Your task to perform on an android device: turn on sleep mode Image 0: 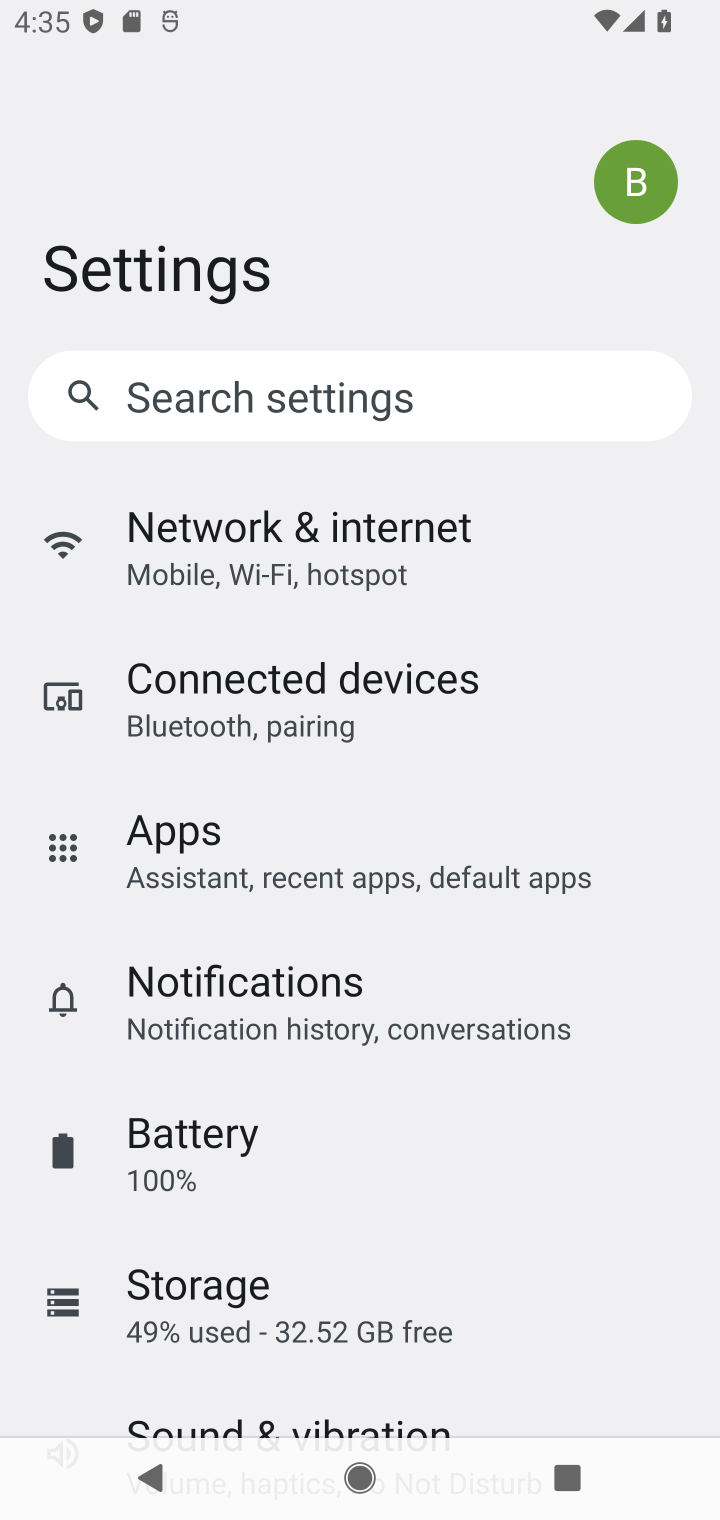
Step 0: drag from (313, 1345) to (265, 1035)
Your task to perform on an android device: turn on sleep mode Image 1: 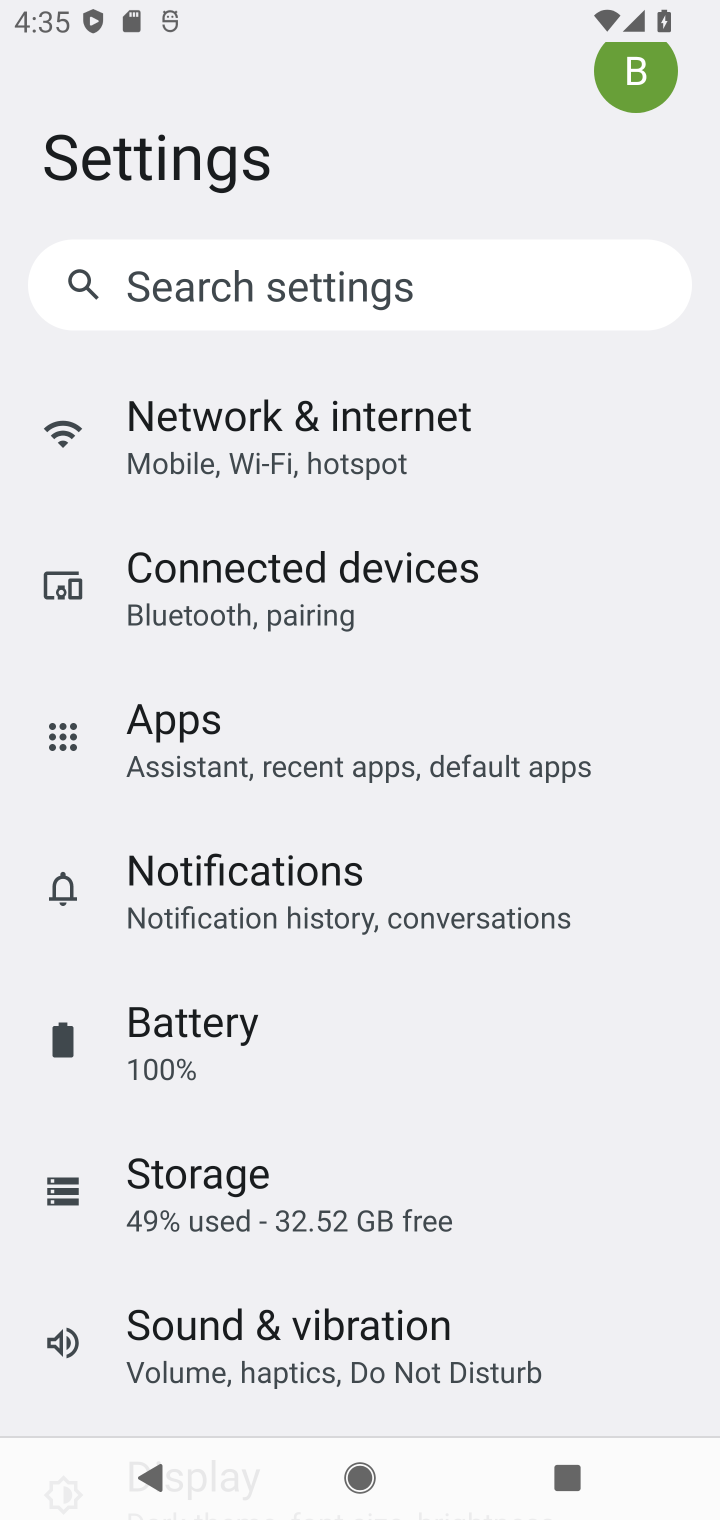
Step 1: drag from (281, 1322) to (185, 759)
Your task to perform on an android device: turn on sleep mode Image 2: 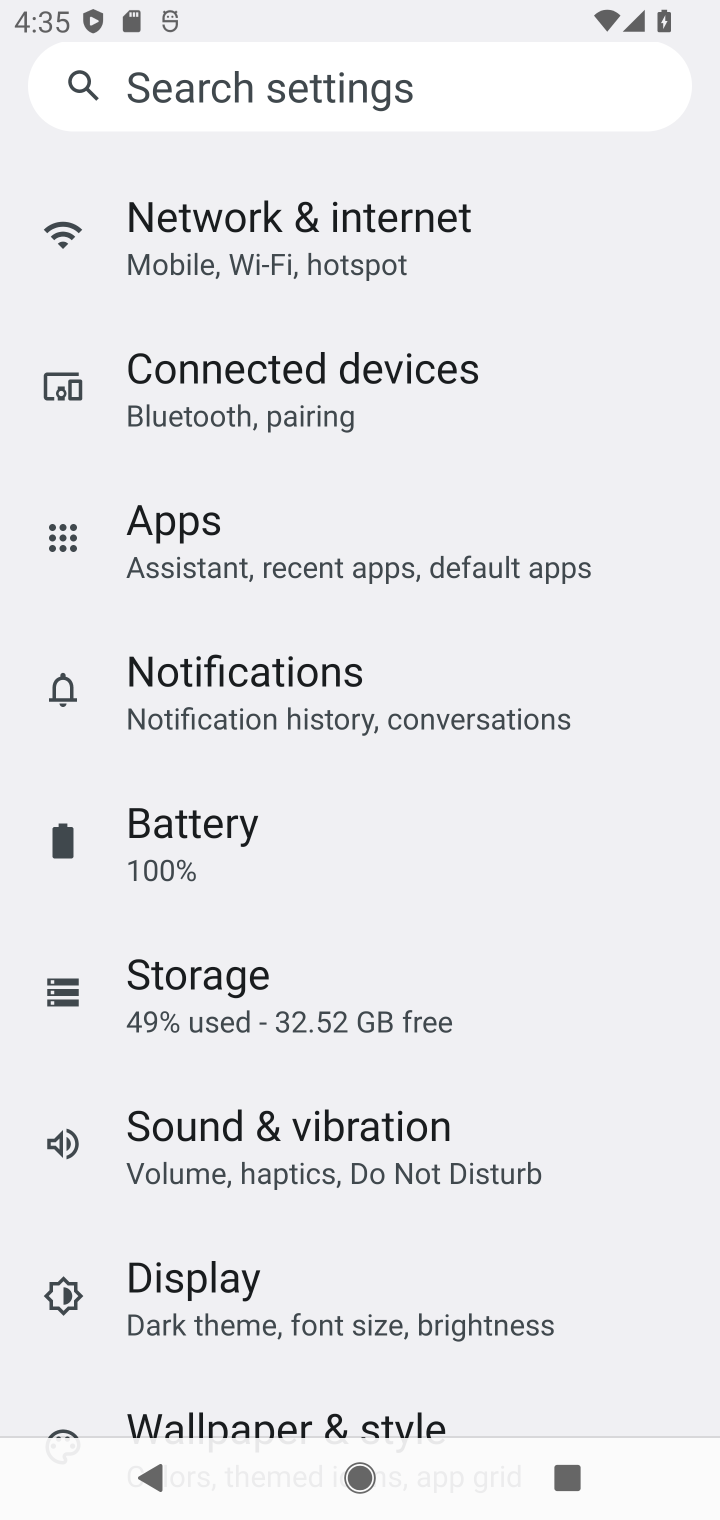
Step 2: click (293, 1318)
Your task to perform on an android device: turn on sleep mode Image 3: 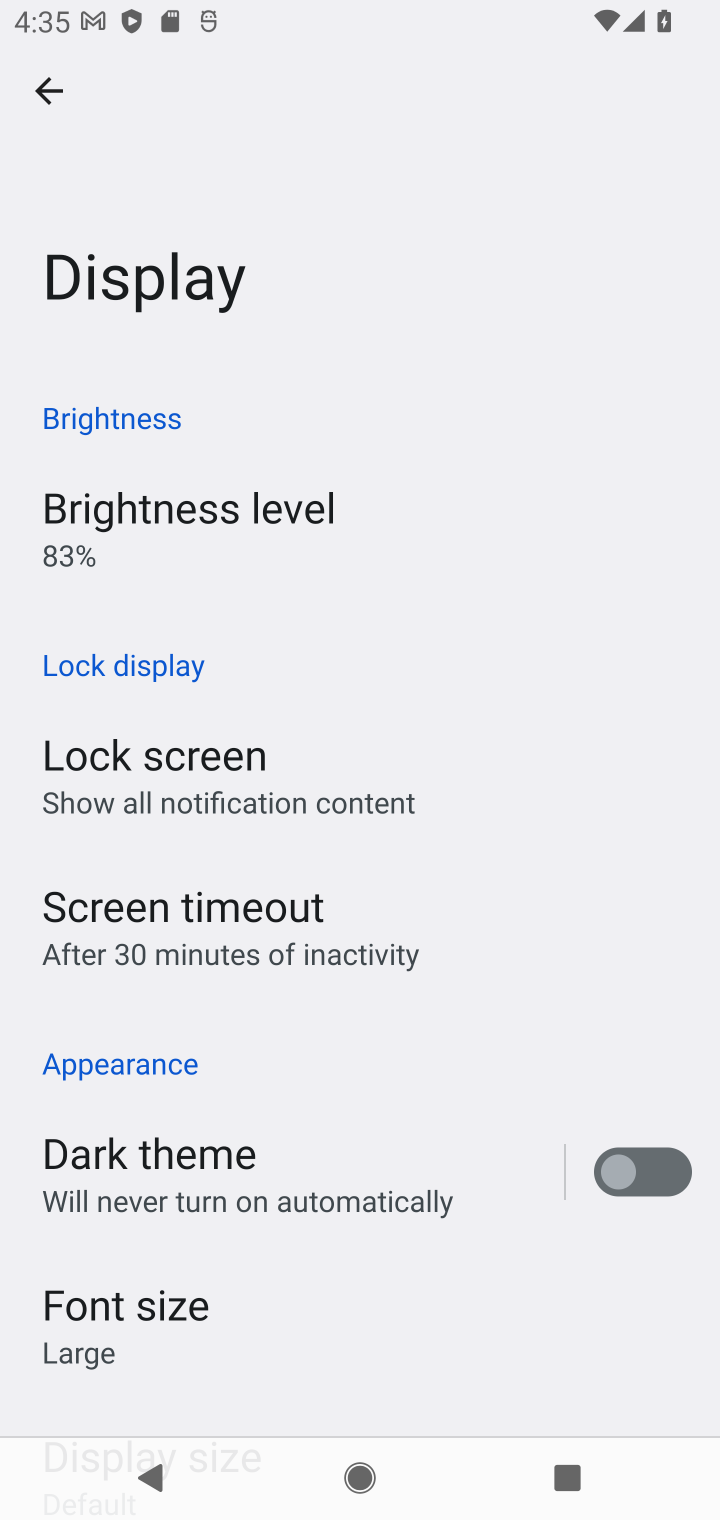
Step 3: task complete